Your task to perform on an android device: Go to Reddit.com Image 0: 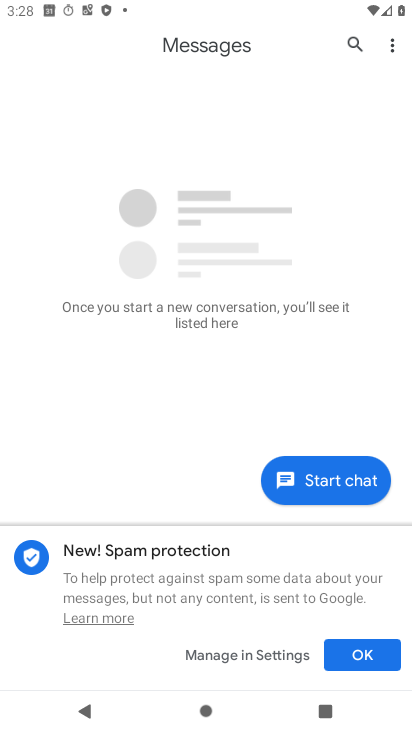
Step 0: press home button
Your task to perform on an android device: Go to Reddit.com Image 1: 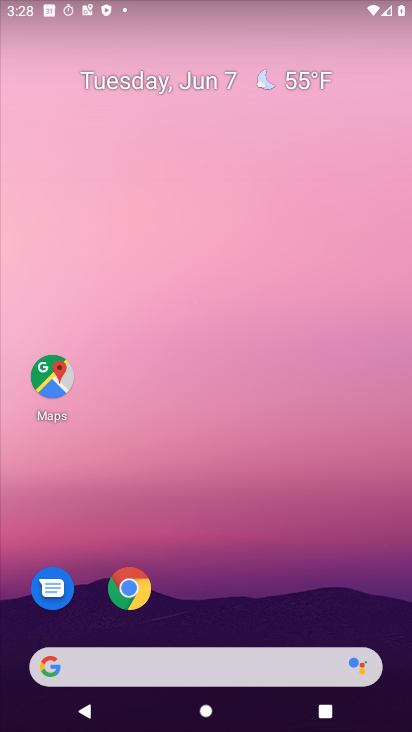
Step 1: click (48, 664)
Your task to perform on an android device: Go to Reddit.com Image 2: 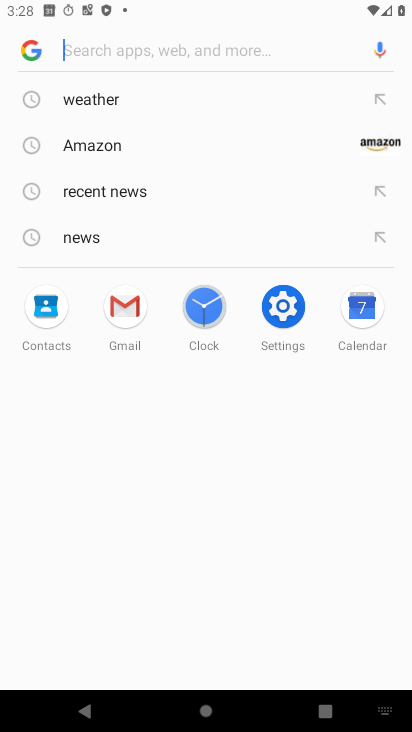
Step 2: type "Reddit.com"
Your task to perform on an android device: Go to Reddit.com Image 3: 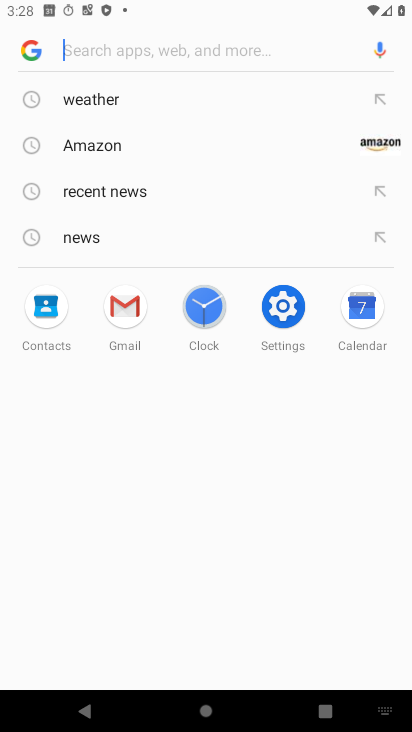
Step 3: click (148, 52)
Your task to perform on an android device: Go to Reddit.com Image 4: 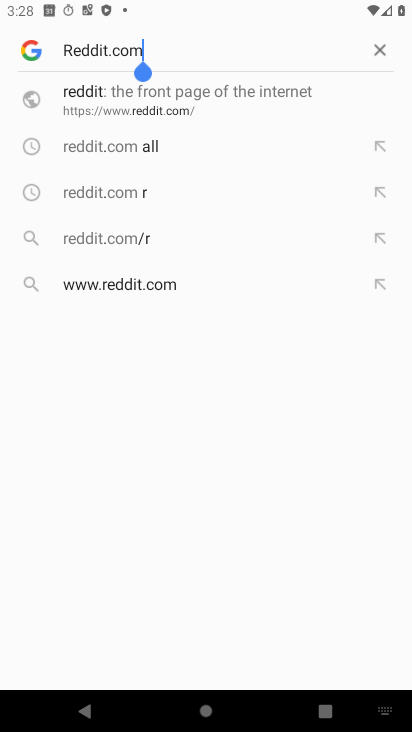
Step 4: click (72, 95)
Your task to perform on an android device: Go to Reddit.com Image 5: 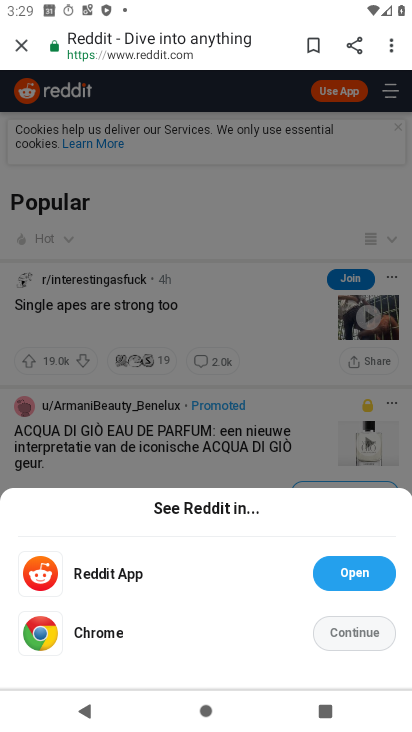
Step 5: task complete